Your task to perform on an android device: Open Youtube and go to the subscriptions tab Image 0: 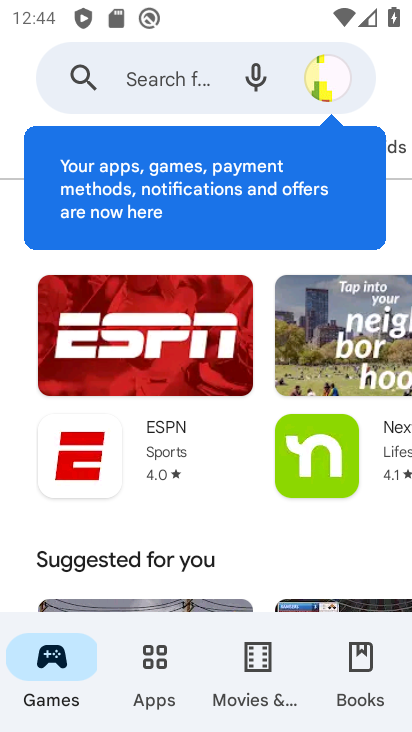
Step 0: press home button
Your task to perform on an android device: Open Youtube and go to the subscriptions tab Image 1: 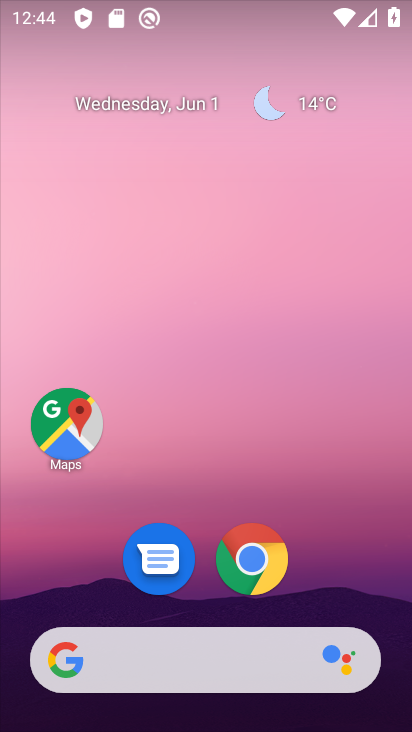
Step 1: drag from (359, 478) to (303, 87)
Your task to perform on an android device: Open Youtube and go to the subscriptions tab Image 2: 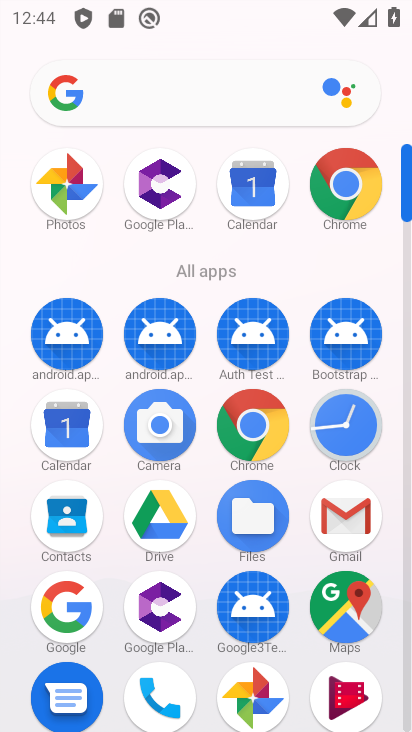
Step 2: drag from (283, 599) to (239, 282)
Your task to perform on an android device: Open Youtube and go to the subscriptions tab Image 3: 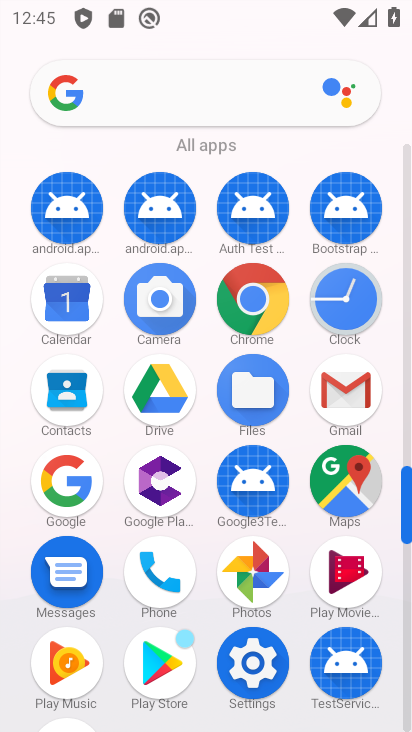
Step 3: drag from (202, 687) to (173, 293)
Your task to perform on an android device: Open Youtube and go to the subscriptions tab Image 4: 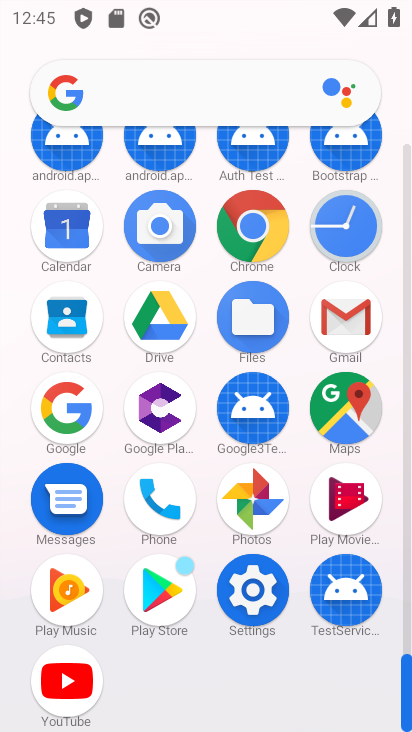
Step 4: click (41, 683)
Your task to perform on an android device: Open Youtube and go to the subscriptions tab Image 5: 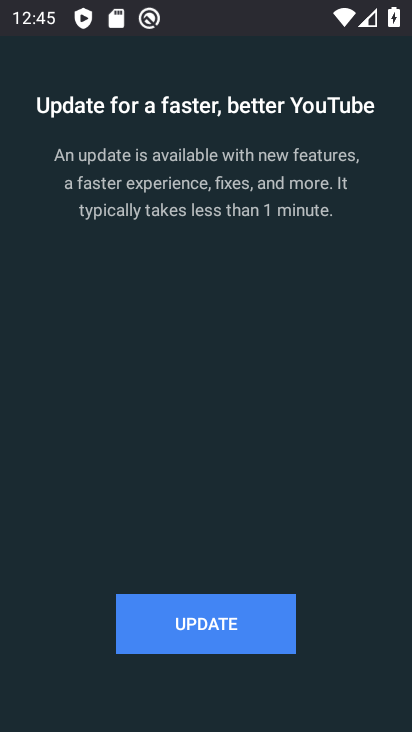
Step 5: click (209, 634)
Your task to perform on an android device: Open Youtube and go to the subscriptions tab Image 6: 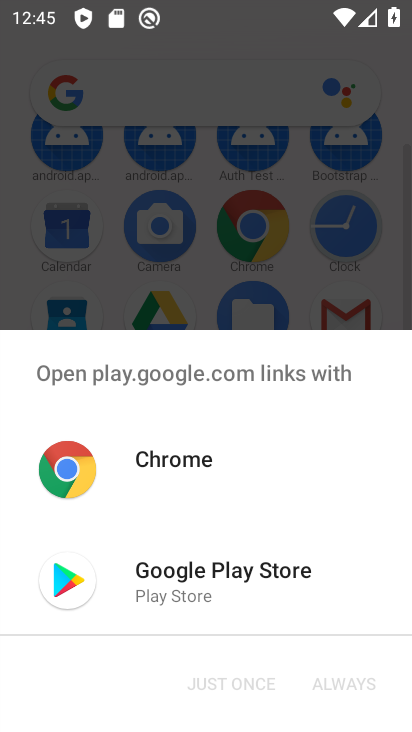
Step 6: click (158, 563)
Your task to perform on an android device: Open Youtube and go to the subscriptions tab Image 7: 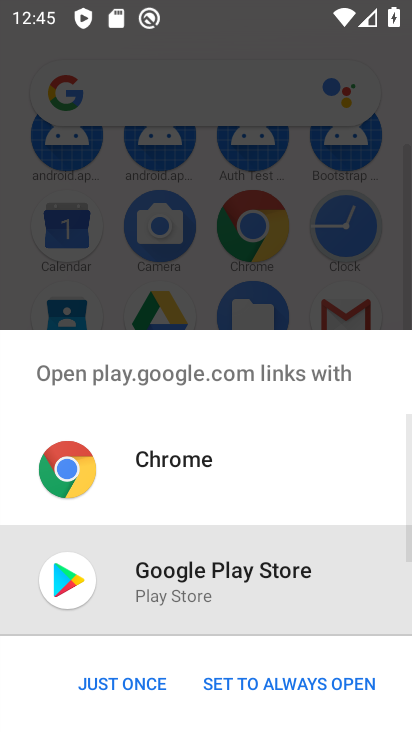
Step 7: click (145, 678)
Your task to perform on an android device: Open Youtube and go to the subscriptions tab Image 8: 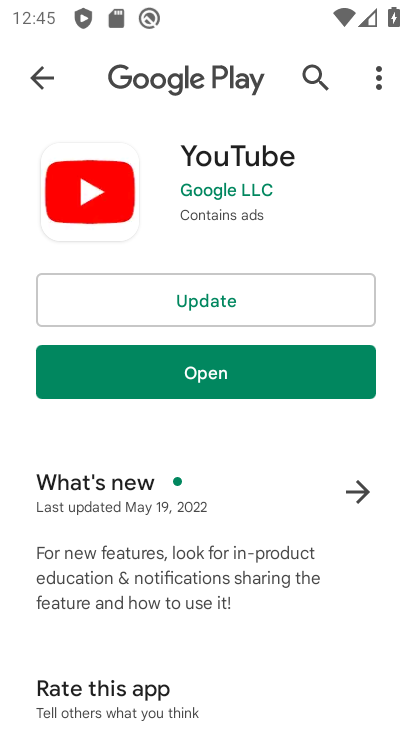
Step 8: click (172, 309)
Your task to perform on an android device: Open Youtube and go to the subscriptions tab Image 9: 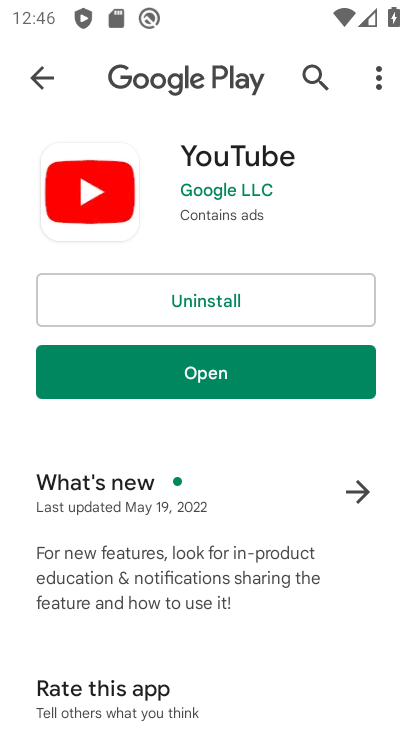
Step 9: click (288, 362)
Your task to perform on an android device: Open Youtube and go to the subscriptions tab Image 10: 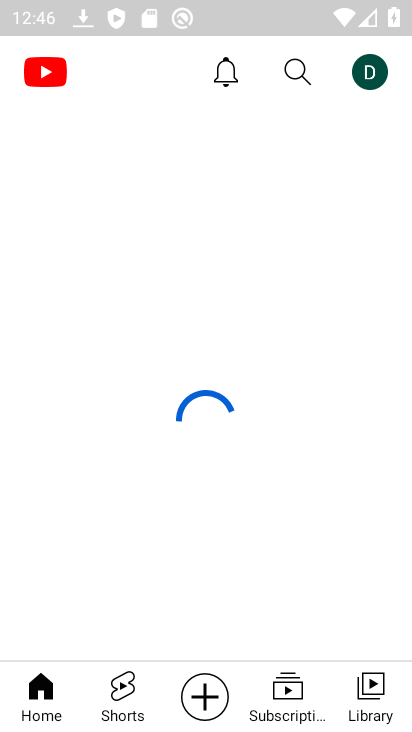
Step 10: click (267, 707)
Your task to perform on an android device: Open Youtube and go to the subscriptions tab Image 11: 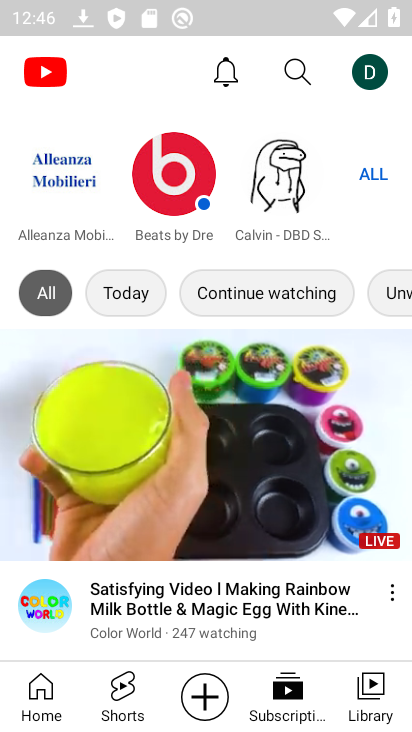
Step 11: task complete